Your task to perform on an android device: Open Google Chrome and open the bookmarks view Image 0: 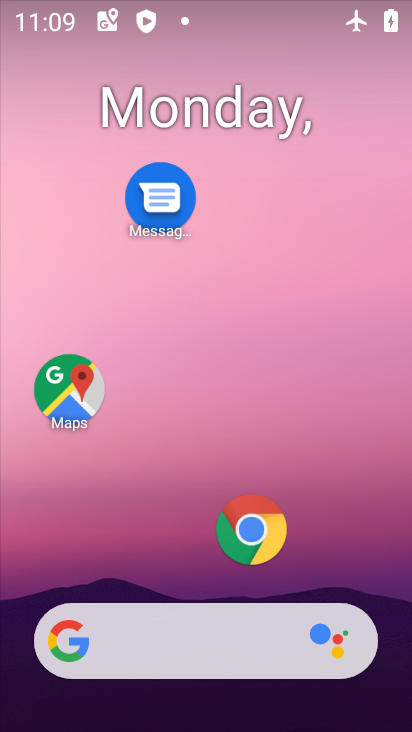
Step 0: drag from (192, 564) to (268, 211)
Your task to perform on an android device: Open Google Chrome and open the bookmarks view Image 1: 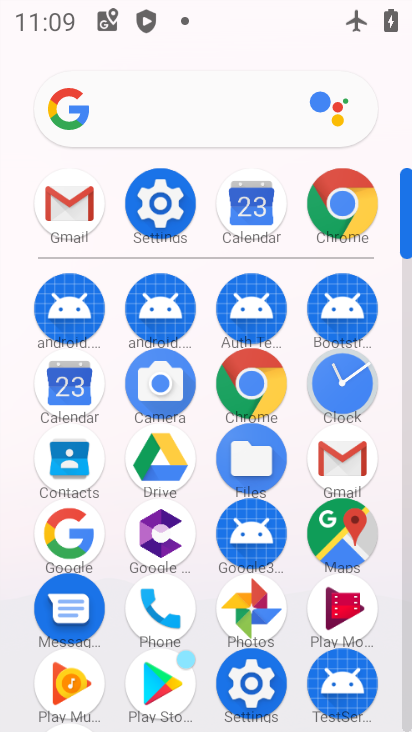
Step 1: click (253, 371)
Your task to perform on an android device: Open Google Chrome and open the bookmarks view Image 2: 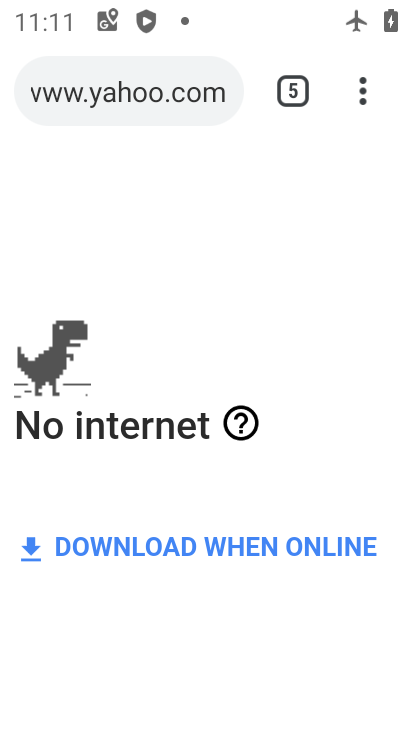
Step 2: click (356, 95)
Your task to perform on an android device: Open Google Chrome and open the bookmarks view Image 3: 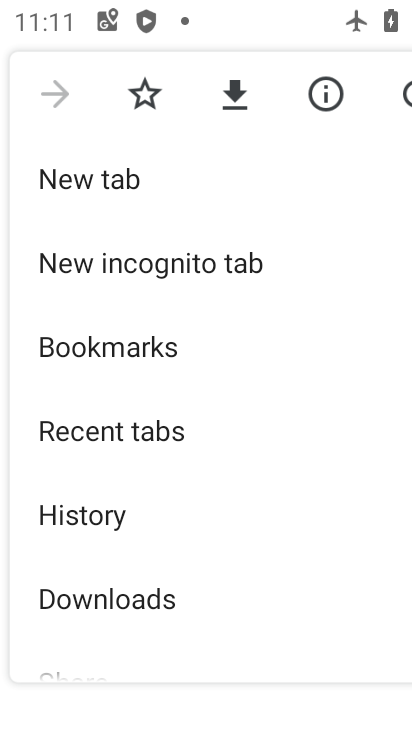
Step 3: click (173, 360)
Your task to perform on an android device: Open Google Chrome and open the bookmarks view Image 4: 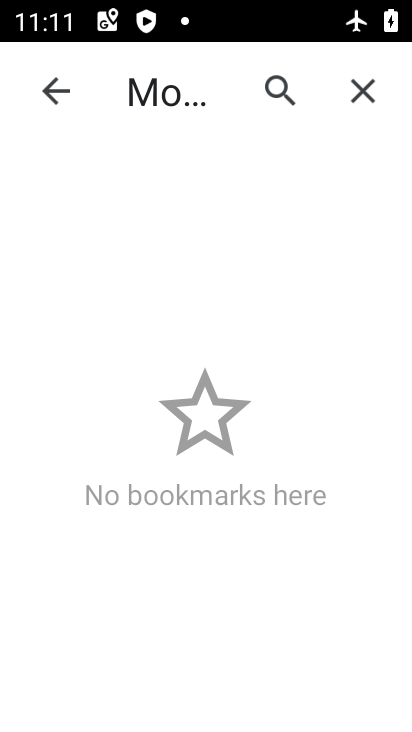
Step 4: task complete